Your task to perform on an android device: Search for sushi restaurants on Maps Image 0: 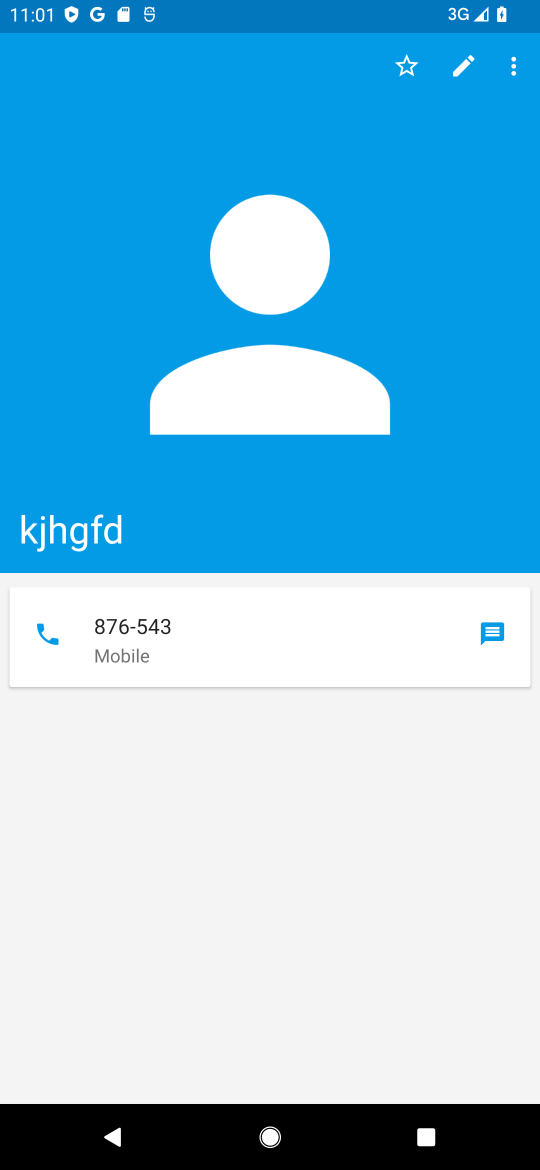
Step 0: press home button
Your task to perform on an android device: Search for sushi restaurants on Maps Image 1: 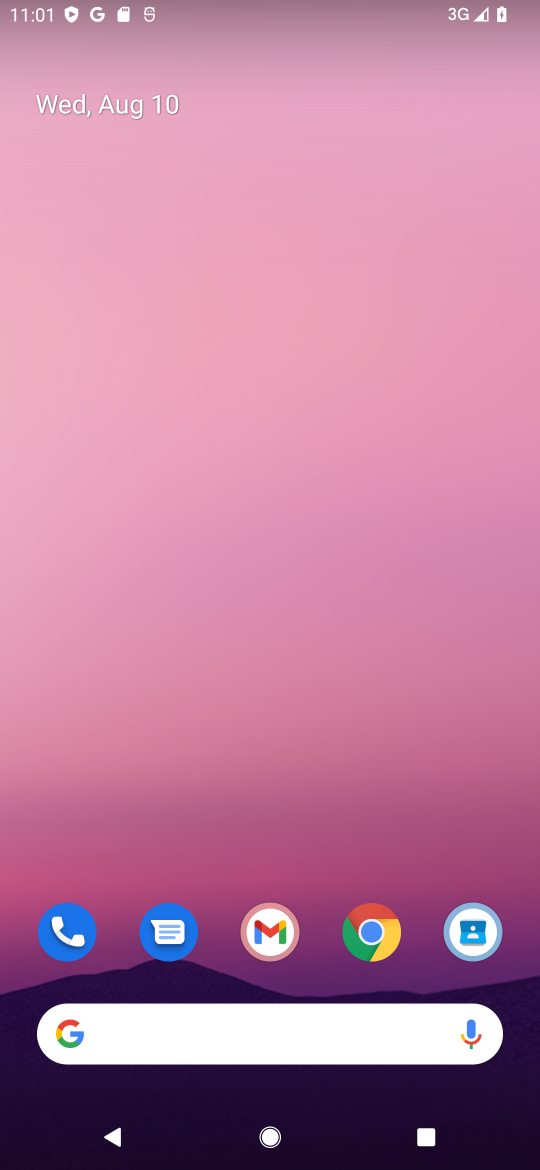
Step 1: drag from (285, 819) to (199, 36)
Your task to perform on an android device: Search for sushi restaurants on Maps Image 2: 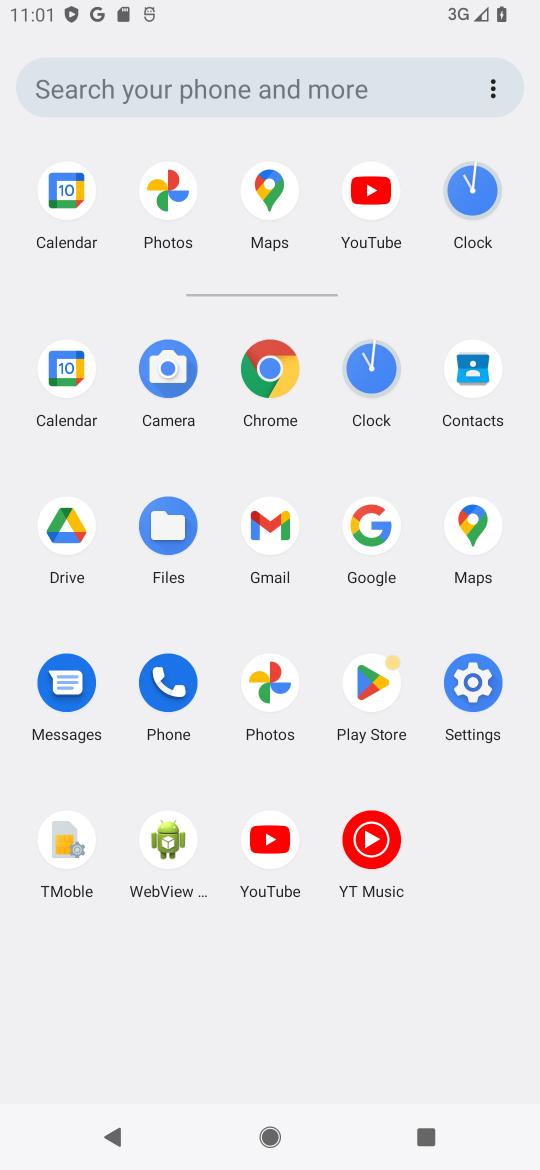
Step 2: click (468, 532)
Your task to perform on an android device: Search for sushi restaurants on Maps Image 3: 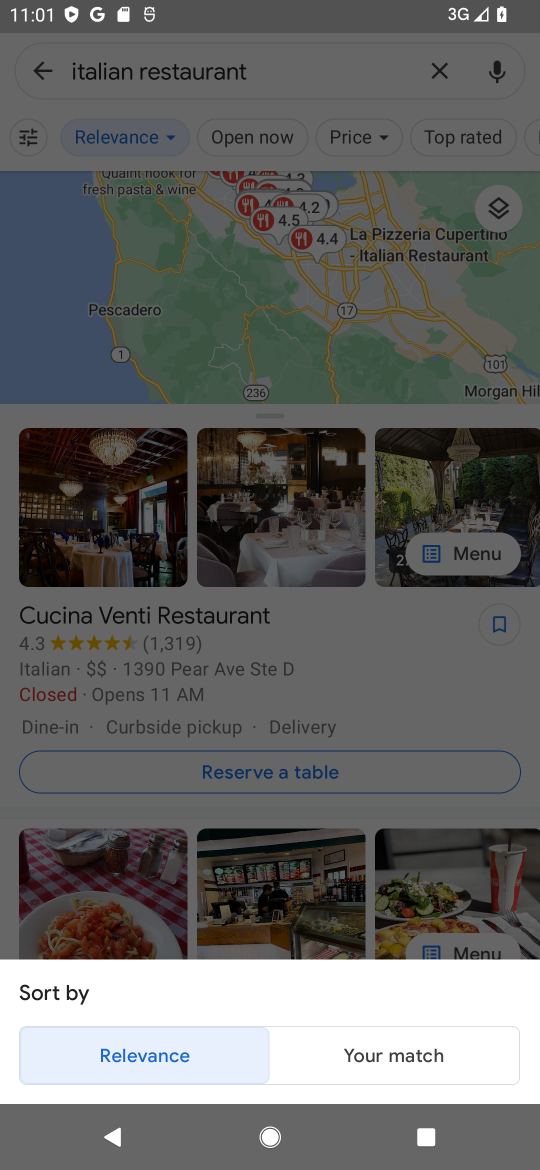
Step 3: click (366, 1058)
Your task to perform on an android device: Search for sushi restaurants on Maps Image 4: 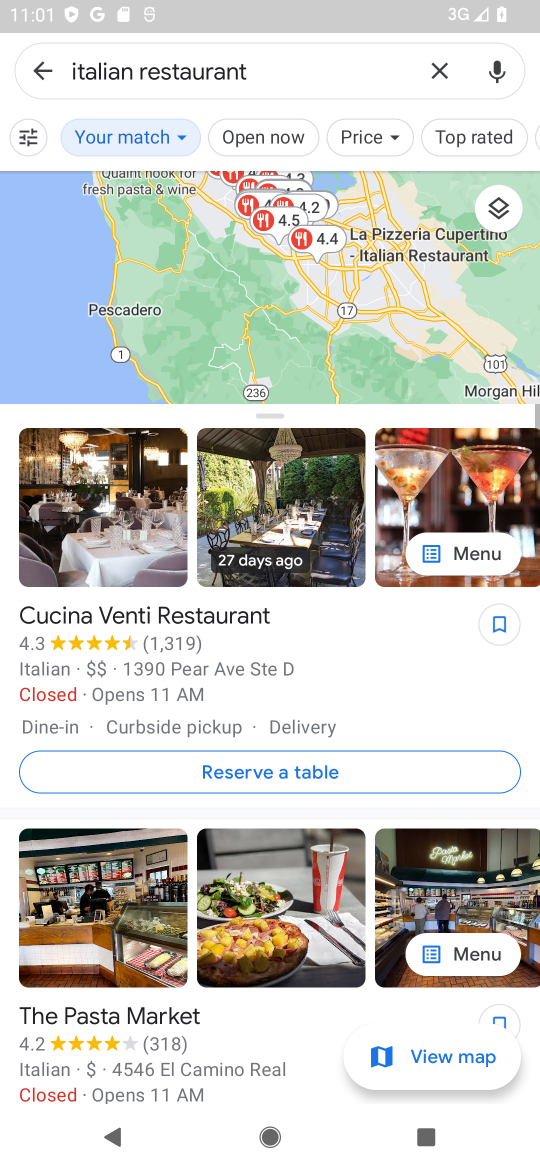
Step 4: click (443, 70)
Your task to perform on an android device: Search for sushi restaurants on Maps Image 5: 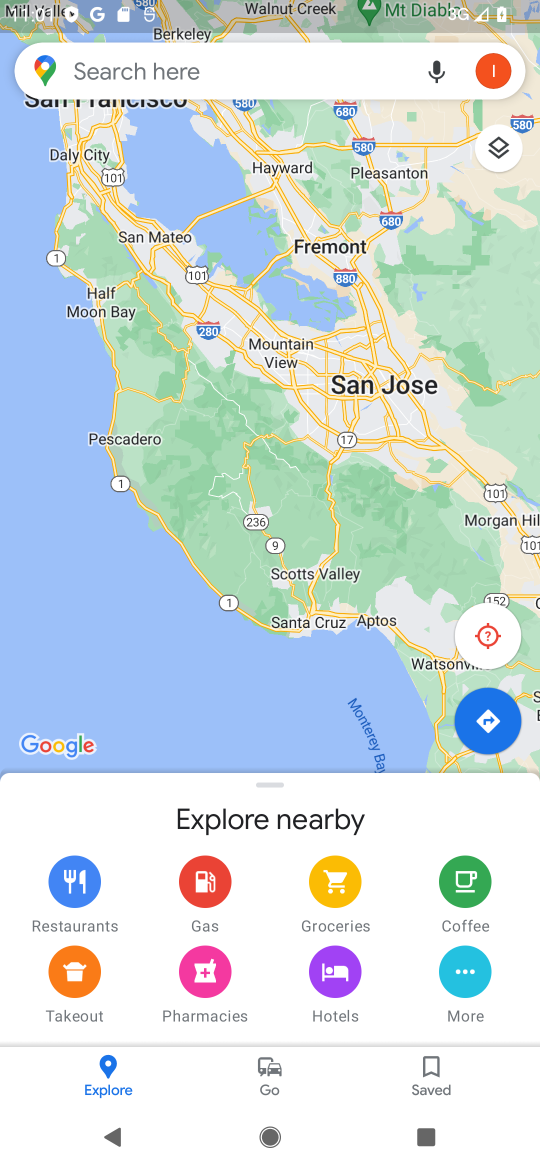
Step 5: click (187, 70)
Your task to perform on an android device: Search for sushi restaurants on Maps Image 6: 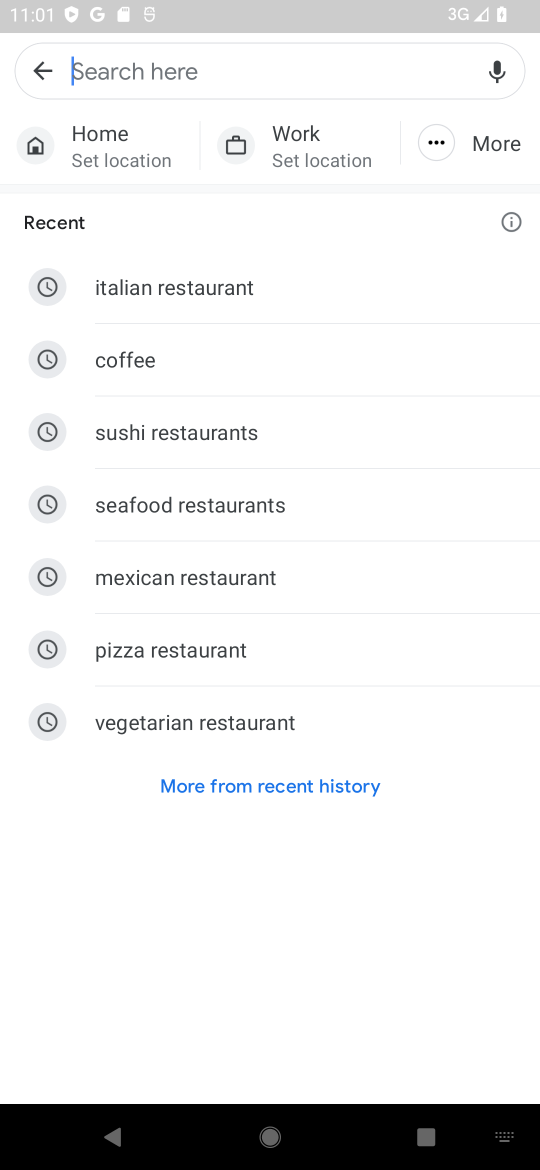
Step 6: click (177, 423)
Your task to perform on an android device: Search for sushi restaurants on Maps Image 7: 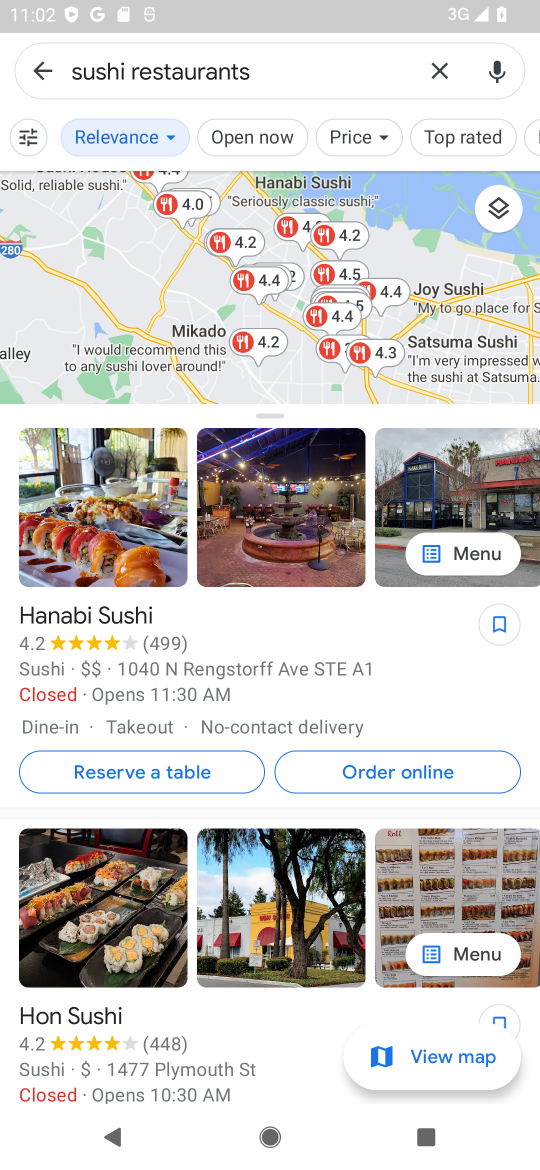
Step 7: task complete